Your task to perform on an android device: Open network settings Image 0: 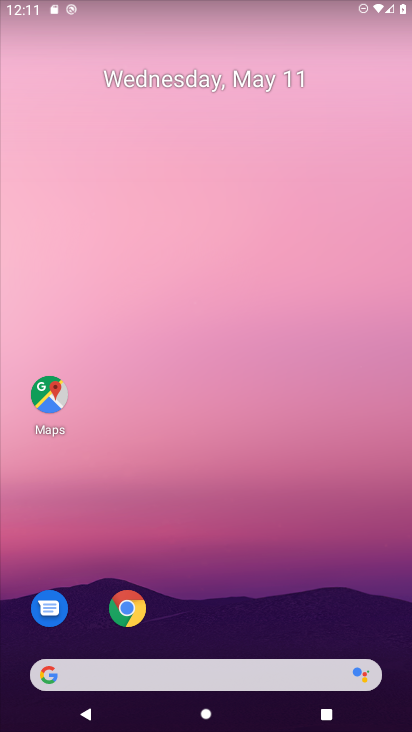
Step 0: drag from (199, 556) to (198, 56)
Your task to perform on an android device: Open network settings Image 1: 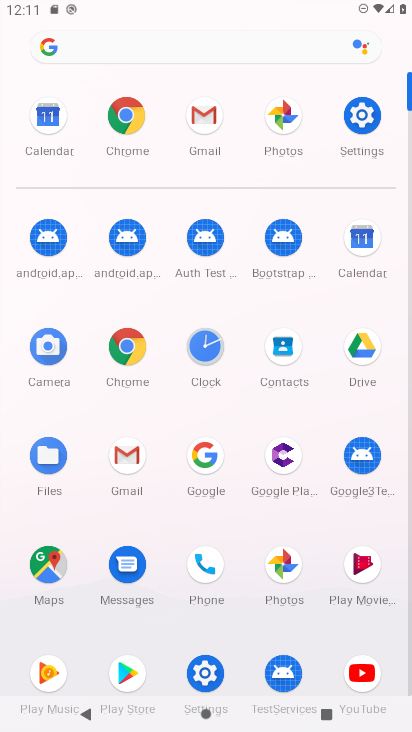
Step 1: click (360, 111)
Your task to perform on an android device: Open network settings Image 2: 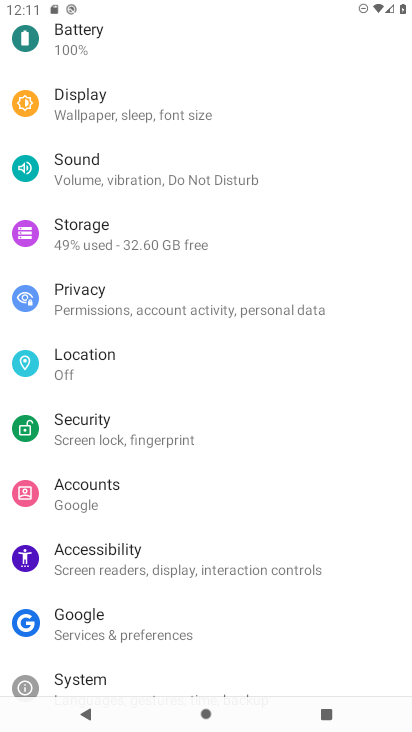
Step 2: drag from (249, 226) to (249, 576)
Your task to perform on an android device: Open network settings Image 3: 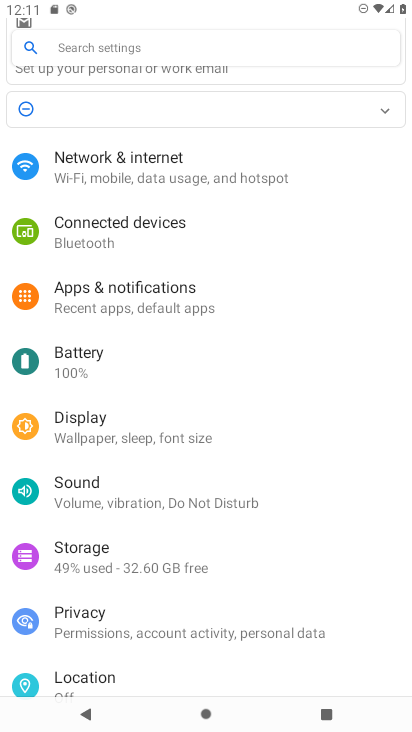
Step 3: click (213, 171)
Your task to perform on an android device: Open network settings Image 4: 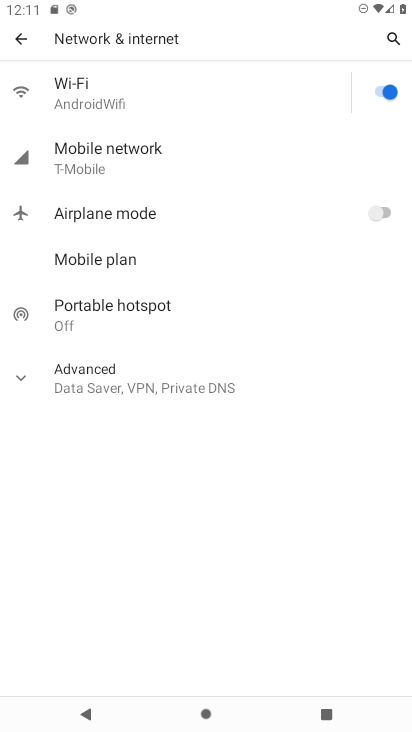
Step 4: task complete